Your task to perform on an android device: change alarm snooze length Image 0: 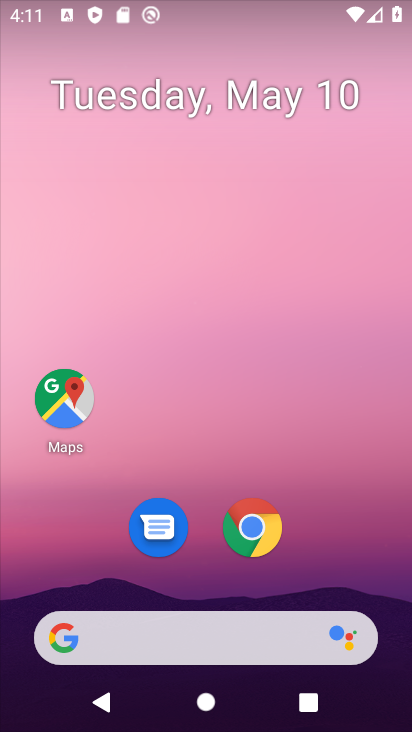
Step 0: drag from (343, 560) to (342, 55)
Your task to perform on an android device: change alarm snooze length Image 1: 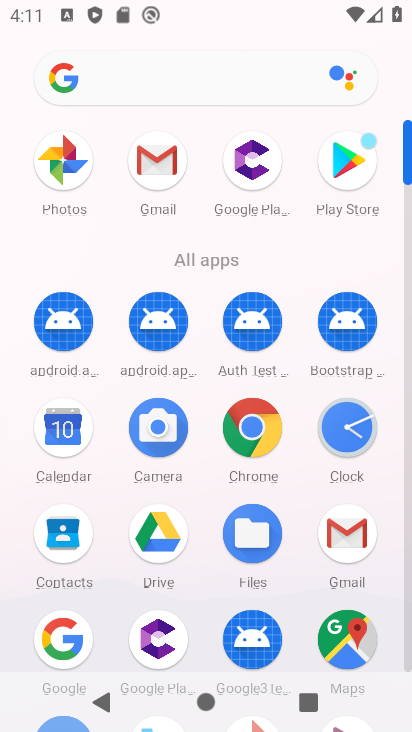
Step 1: click (348, 424)
Your task to perform on an android device: change alarm snooze length Image 2: 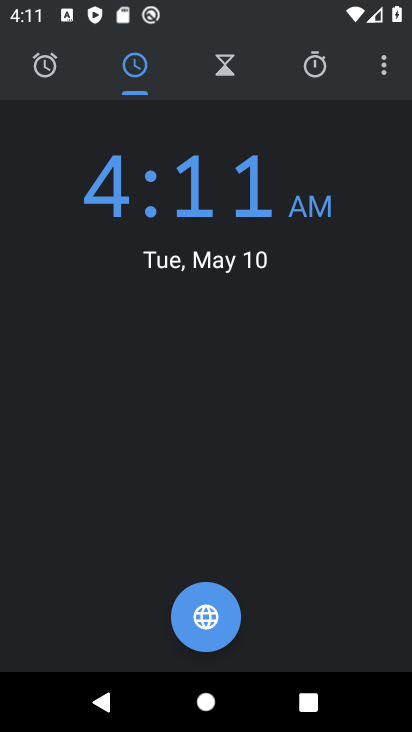
Step 2: click (383, 64)
Your task to perform on an android device: change alarm snooze length Image 3: 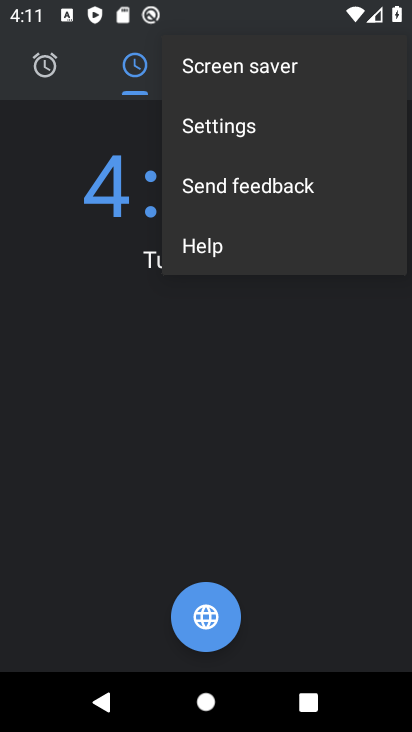
Step 3: click (300, 134)
Your task to perform on an android device: change alarm snooze length Image 4: 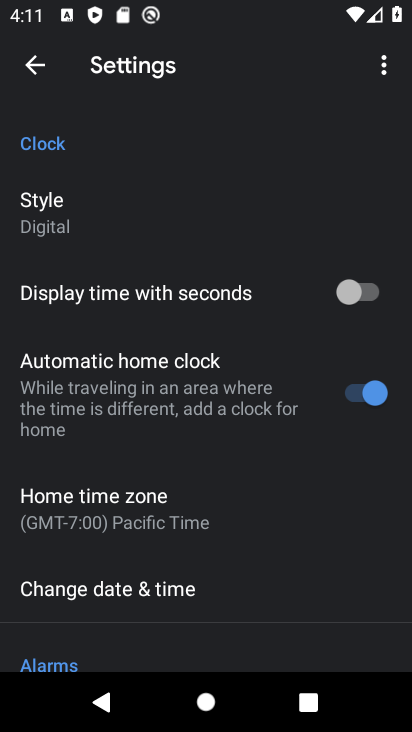
Step 4: drag from (229, 578) to (218, 11)
Your task to perform on an android device: change alarm snooze length Image 5: 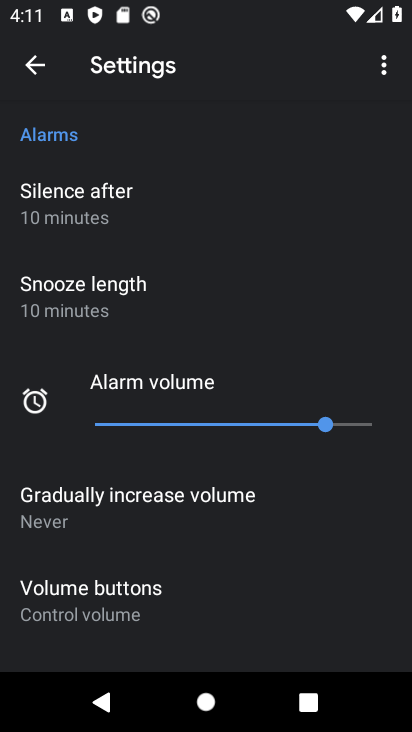
Step 5: click (127, 297)
Your task to perform on an android device: change alarm snooze length Image 6: 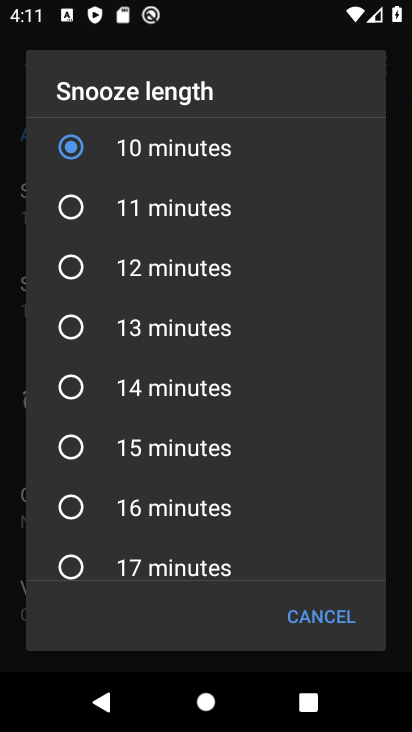
Step 6: click (76, 264)
Your task to perform on an android device: change alarm snooze length Image 7: 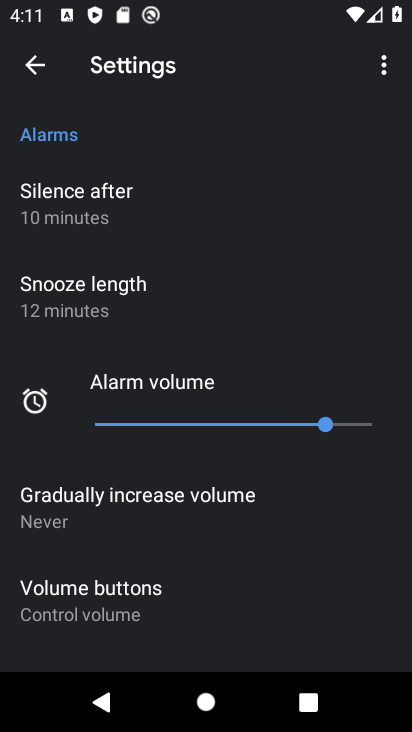
Step 7: task complete